Your task to perform on an android device: Check the weather Image 0: 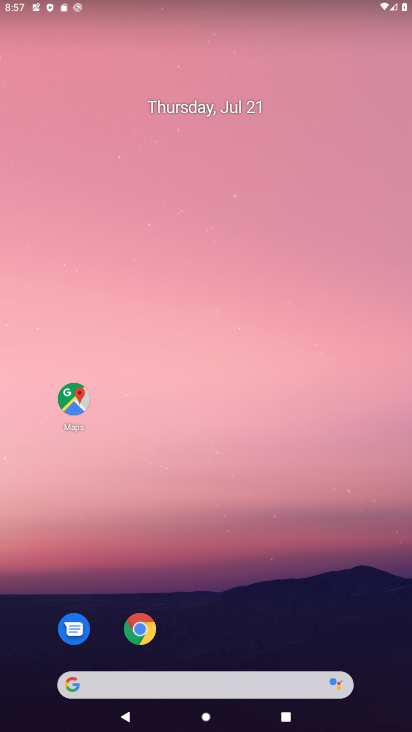
Step 0: click (165, 673)
Your task to perform on an android device: Check the weather Image 1: 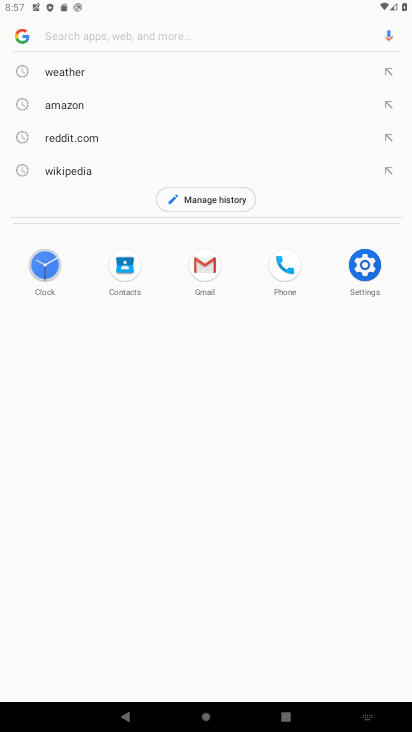
Step 1: click (102, 73)
Your task to perform on an android device: Check the weather Image 2: 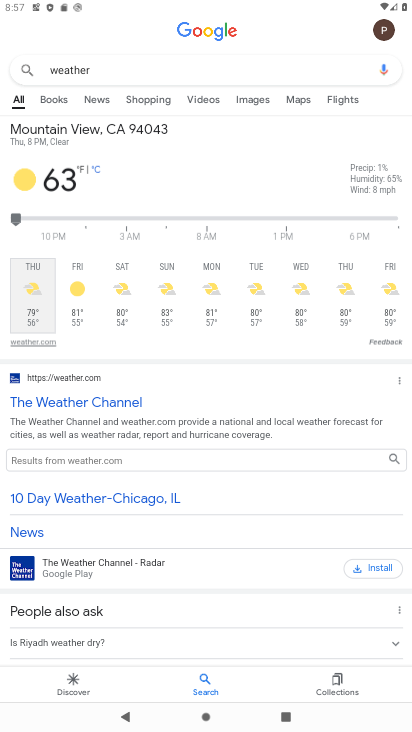
Step 2: task complete